Your task to perform on an android device: Open the map Image 0: 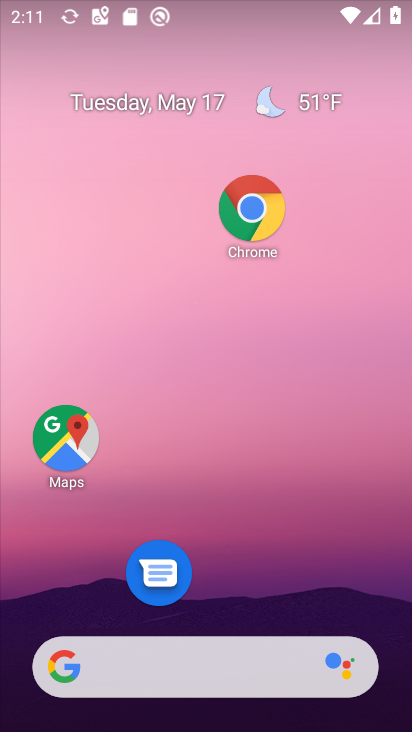
Step 0: drag from (236, 619) to (213, 61)
Your task to perform on an android device: Open the map Image 1: 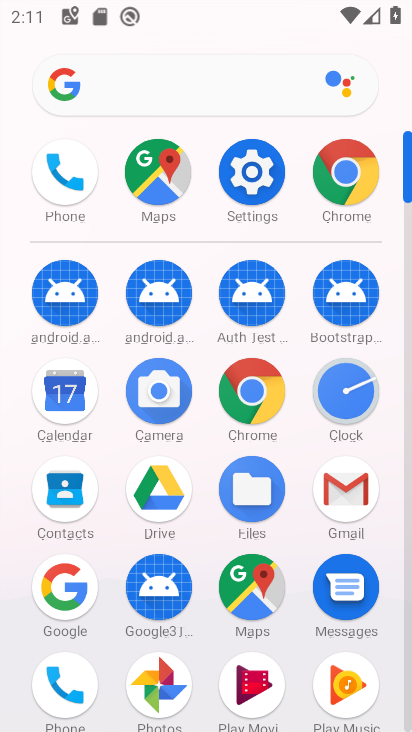
Step 1: click (156, 176)
Your task to perform on an android device: Open the map Image 2: 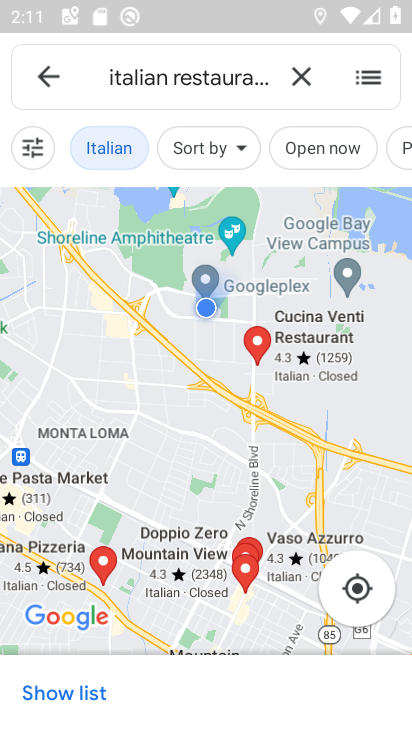
Step 2: click (48, 76)
Your task to perform on an android device: Open the map Image 3: 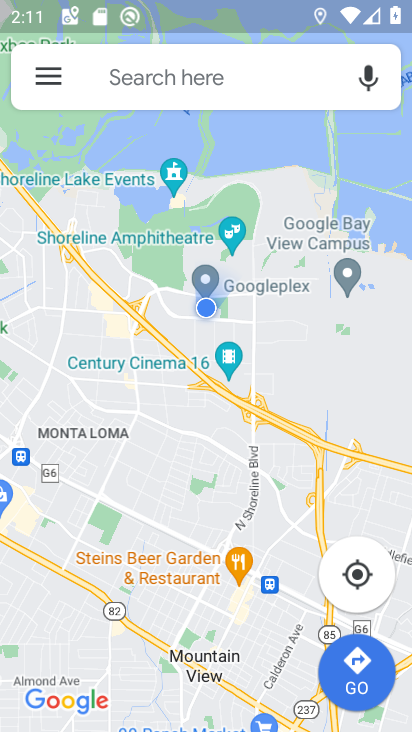
Step 3: task complete